Your task to perform on an android device: uninstall "WhatsApp Messenger" Image 0: 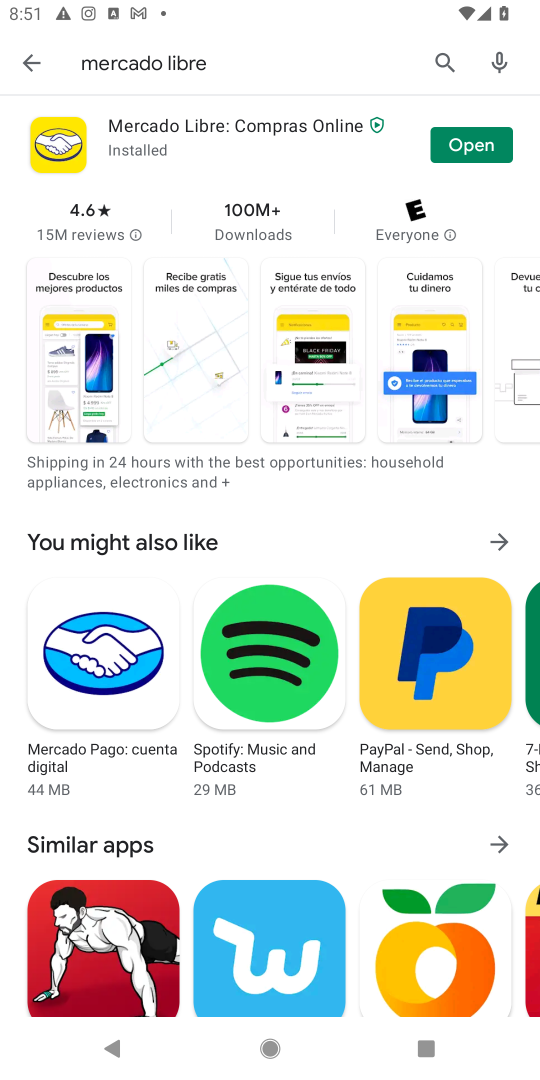
Step 0: press home button
Your task to perform on an android device: uninstall "WhatsApp Messenger" Image 1: 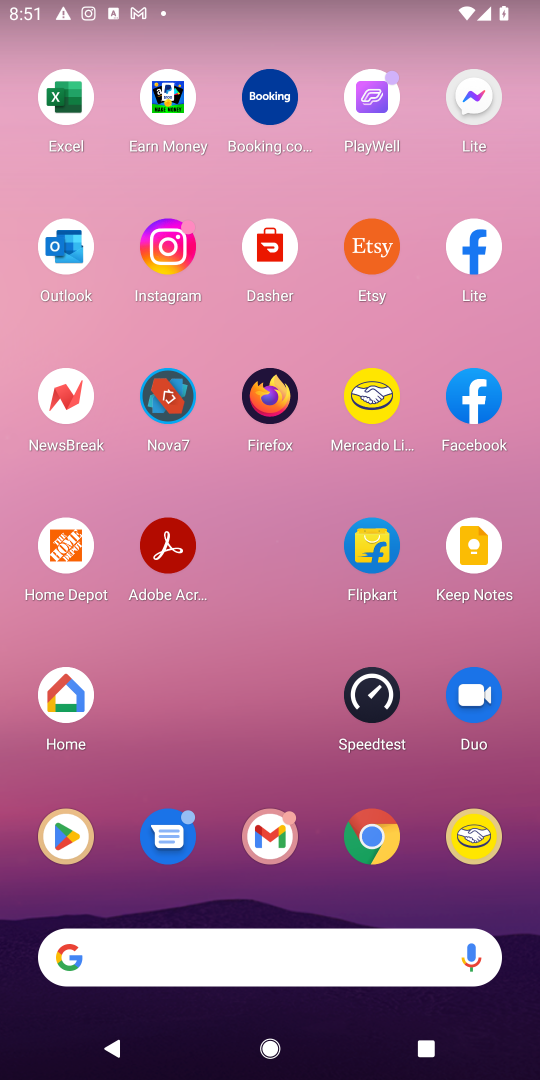
Step 1: press home button
Your task to perform on an android device: uninstall "WhatsApp Messenger" Image 2: 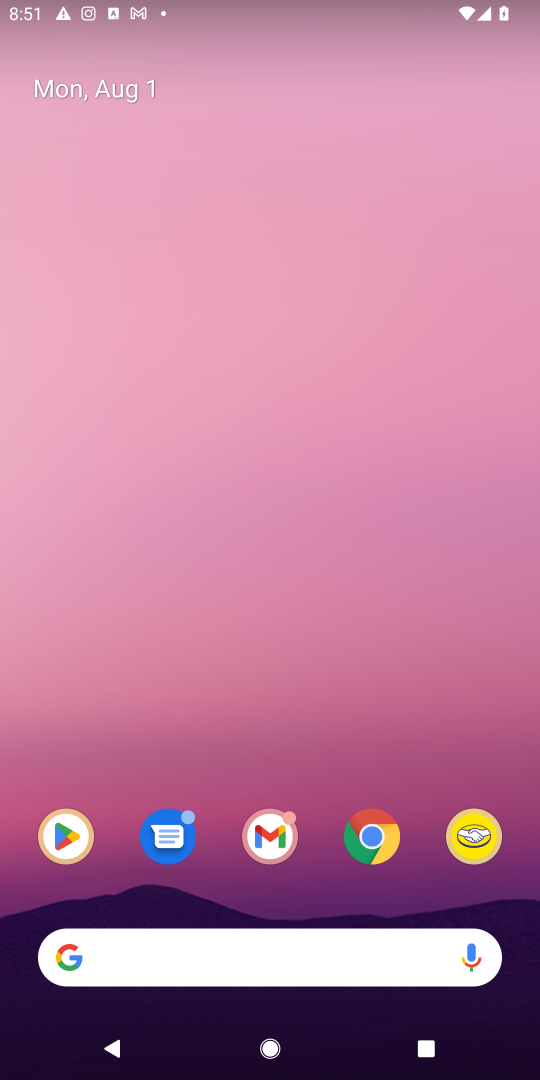
Step 2: click (68, 827)
Your task to perform on an android device: uninstall "WhatsApp Messenger" Image 3: 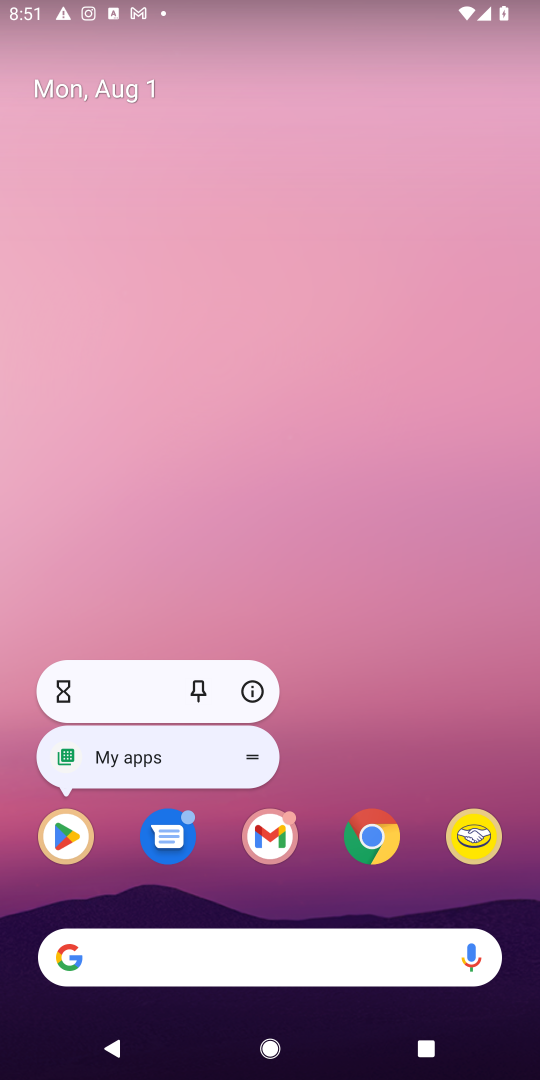
Step 3: click (68, 830)
Your task to perform on an android device: uninstall "WhatsApp Messenger" Image 4: 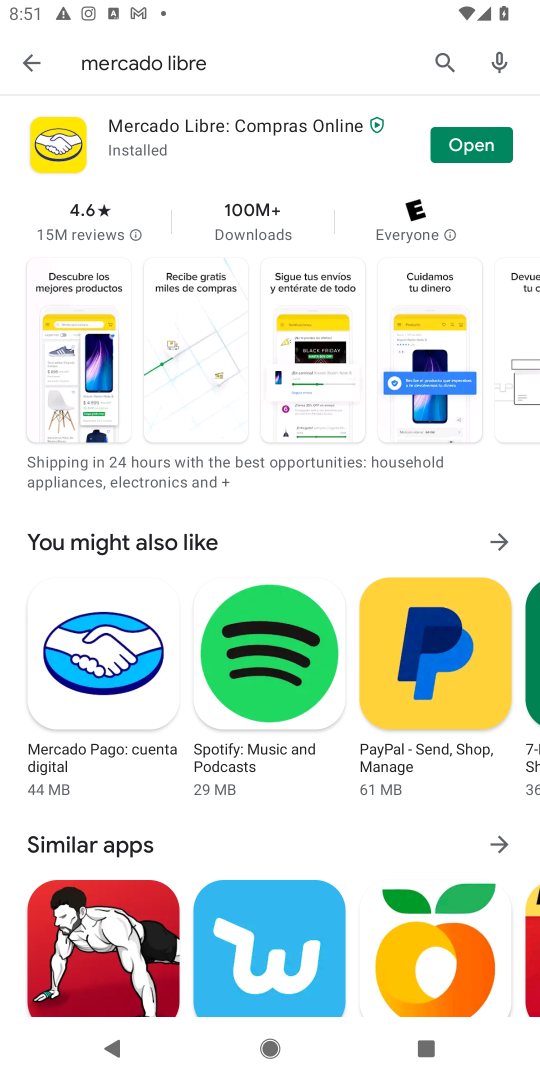
Step 4: click (69, 829)
Your task to perform on an android device: uninstall "WhatsApp Messenger" Image 5: 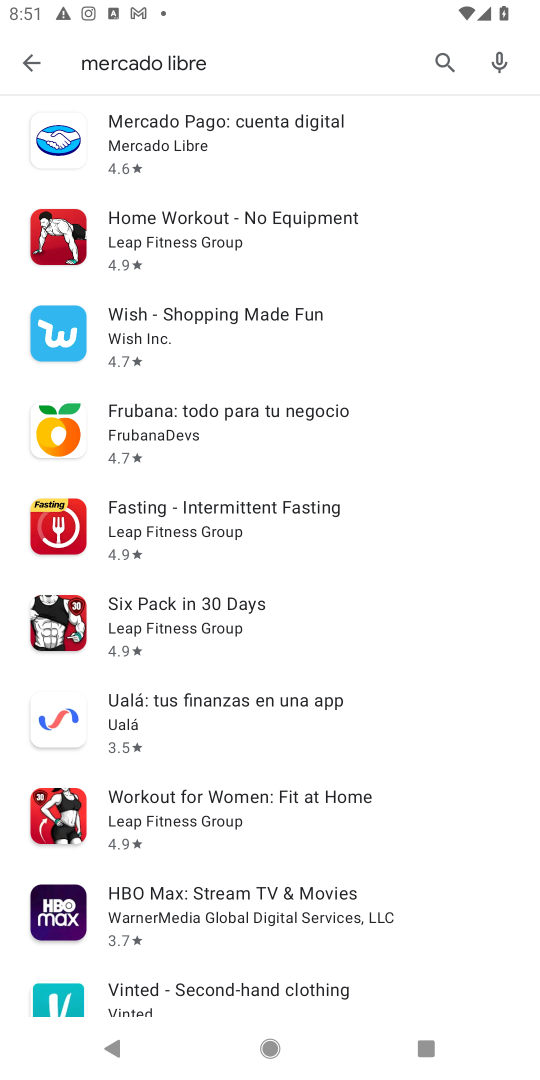
Step 5: click (439, 51)
Your task to perform on an android device: uninstall "WhatsApp Messenger" Image 6: 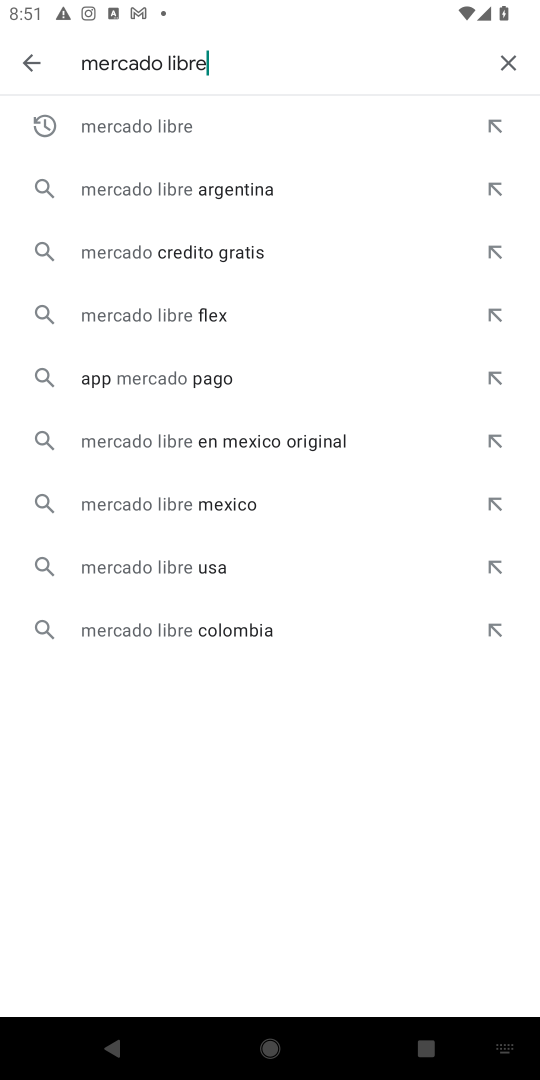
Step 6: click (507, 57)
Your task to perform on an android device: uninstall "WhatsApp Messenger" Image 7: 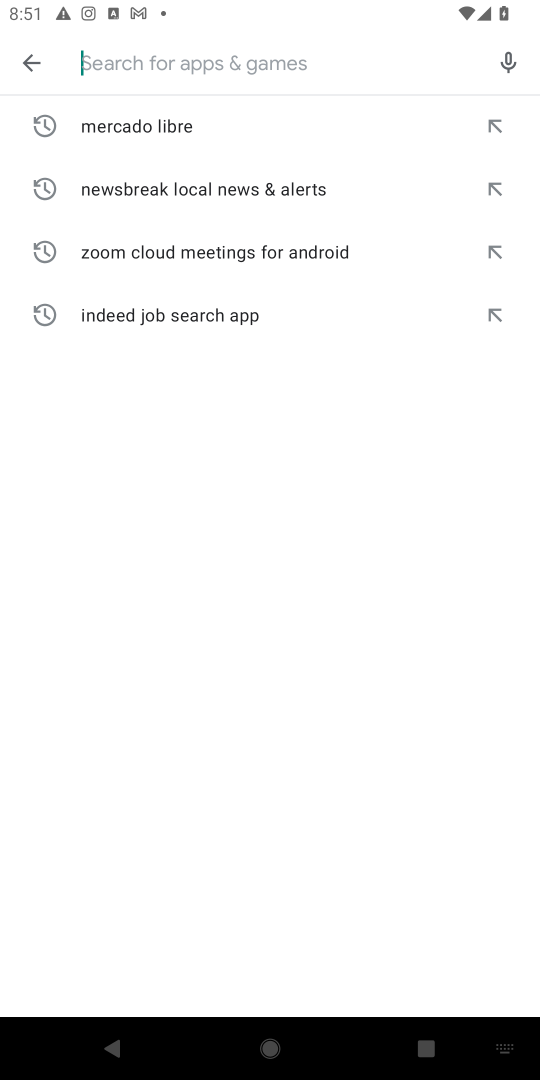
Step 7: type "WhatsApp Messenger"
Your task to perform on an android device: uninstall "WhatsApp Messenger" Image 8: 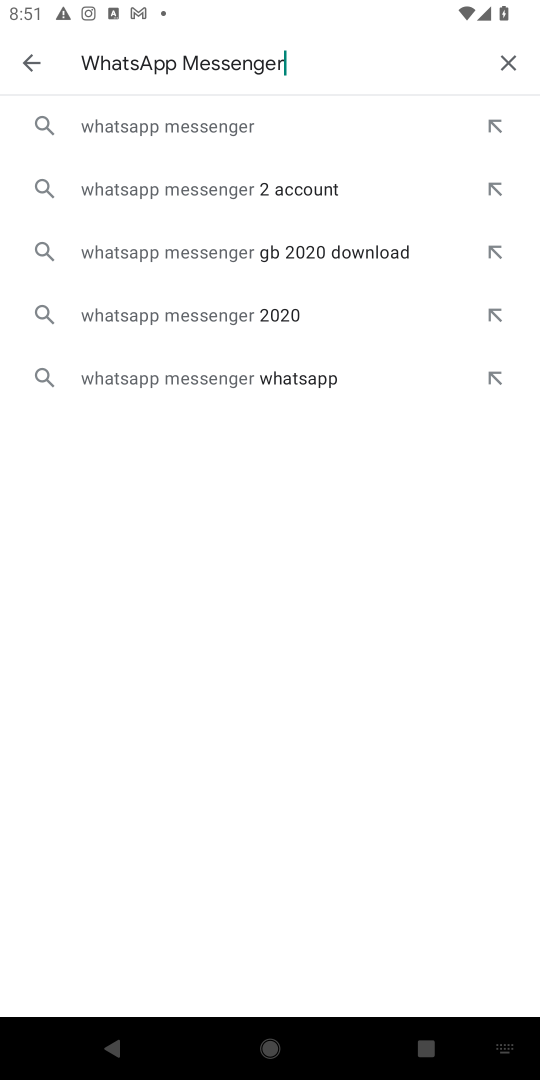
Step 8: click (233, 126)
Your task to perform on an android device: uninstall "WhatsApp Messenger" Image 9: 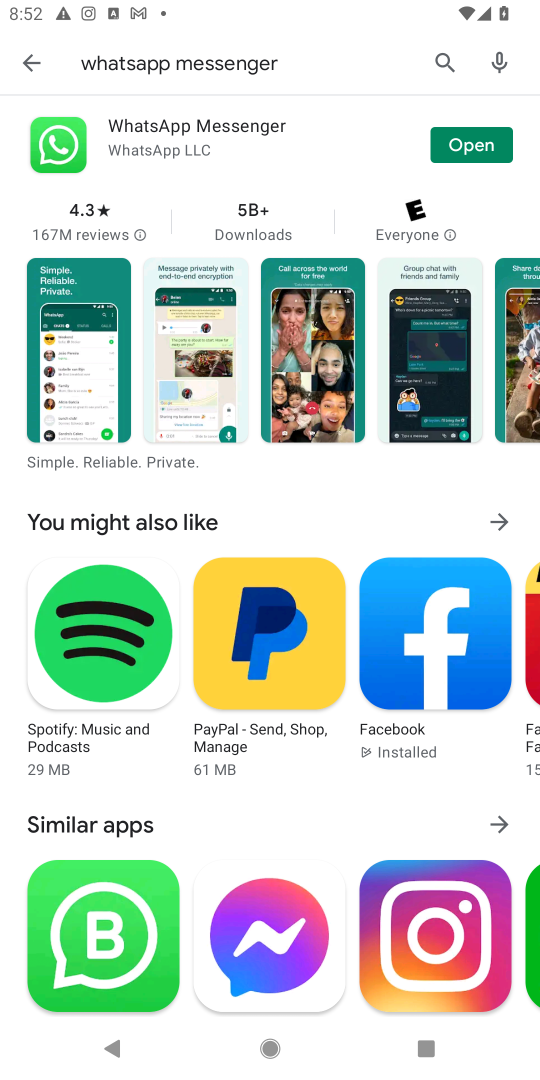
Step 9: click (159, 137)
Your task to perform on an android device: uninstall "WhatsApp Messenger" Image 10: 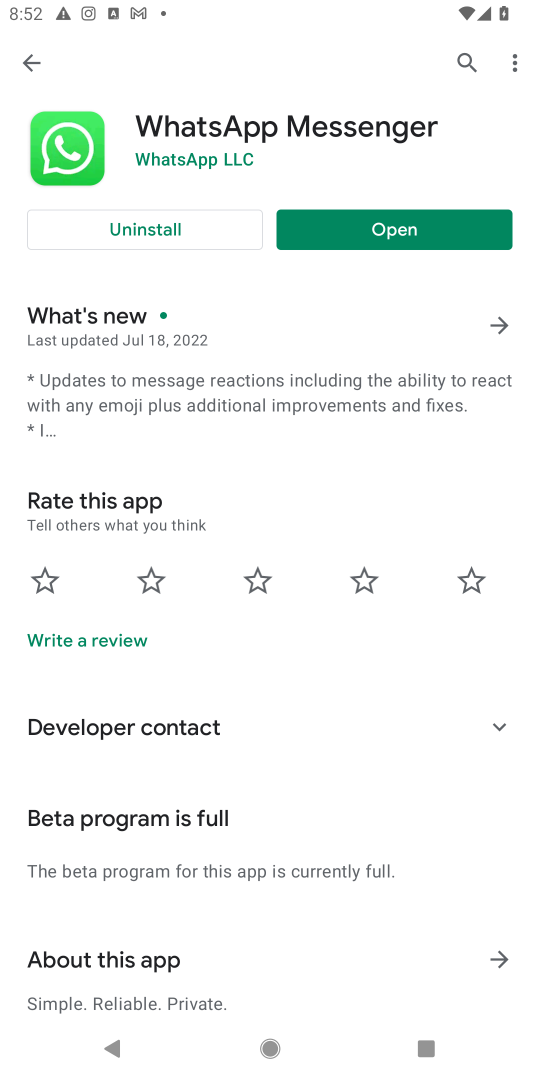
Step 10: click (161, 230)
Your task to perform on an android device: uninstall "WhatsApp Messenger" Image 11: 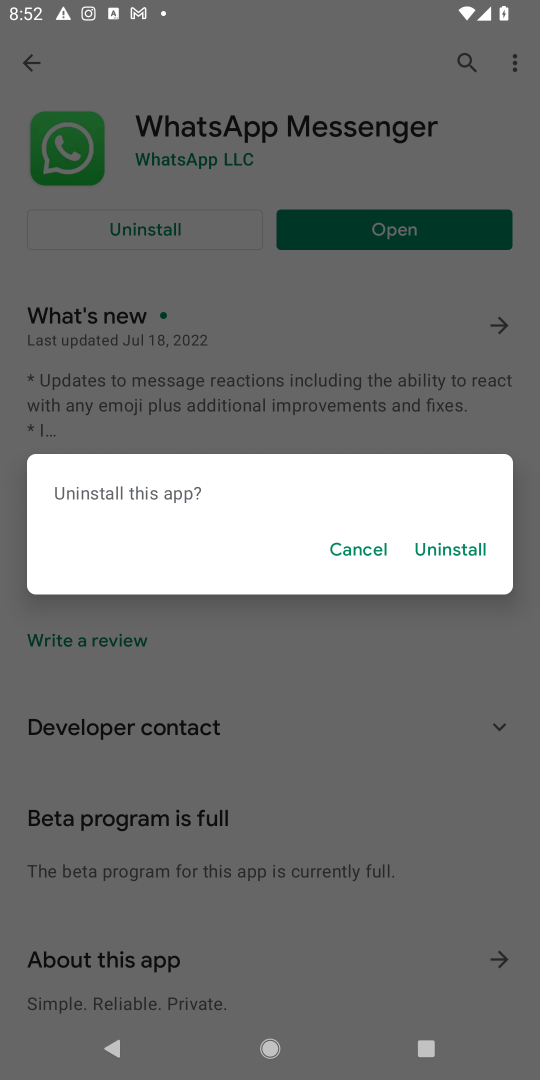
Step 11: click (442, 548)
Your task to perform on an android device: uninstall "WhatsApp Messenger" Image 12: 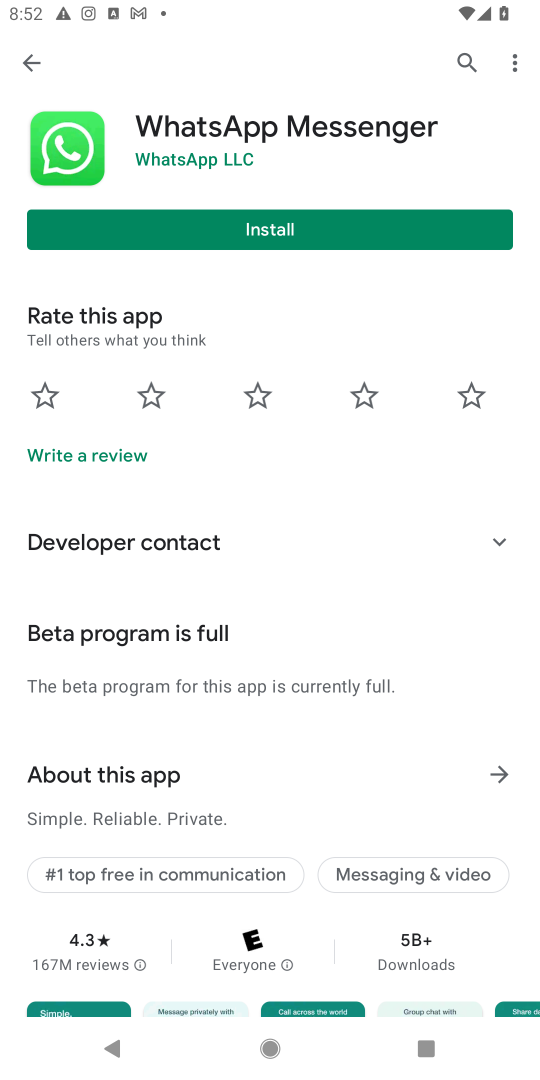
Step 12: task complete